Your task to perform on an android device: check storage Image 0: 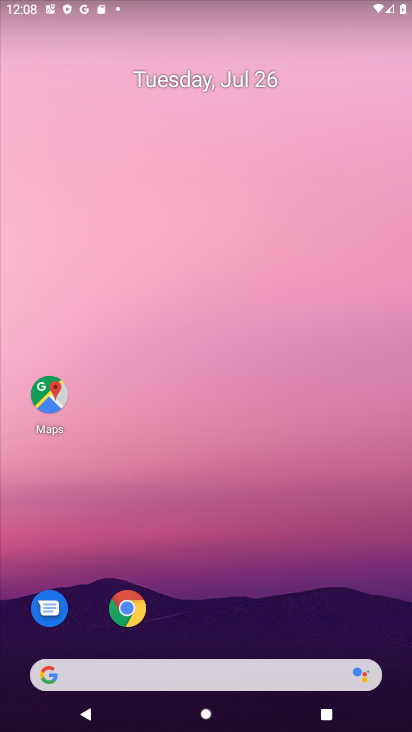
Step 0: click (129, 602)
Your task to perform on an android device: check storage Image 1: 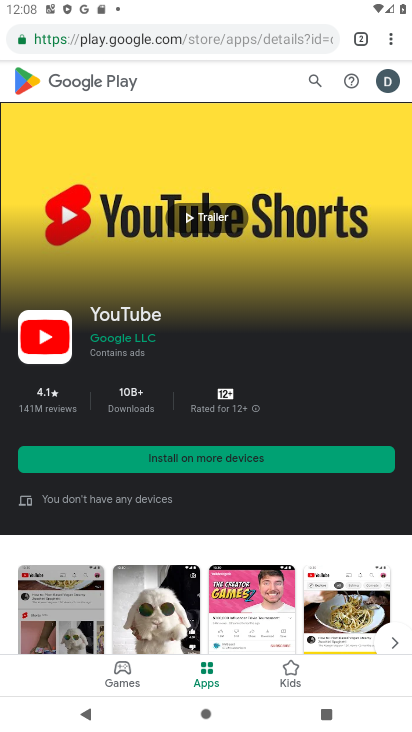
Step 1: press home button
Your task to perform on an android device: check storage Image 2: 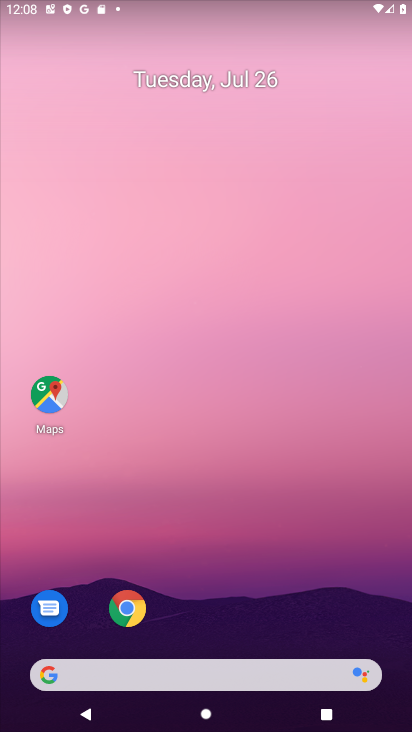
Step 2: drag from (201, 616) to (163, 64)
Your task to perform on an android device: check storage Image 3: 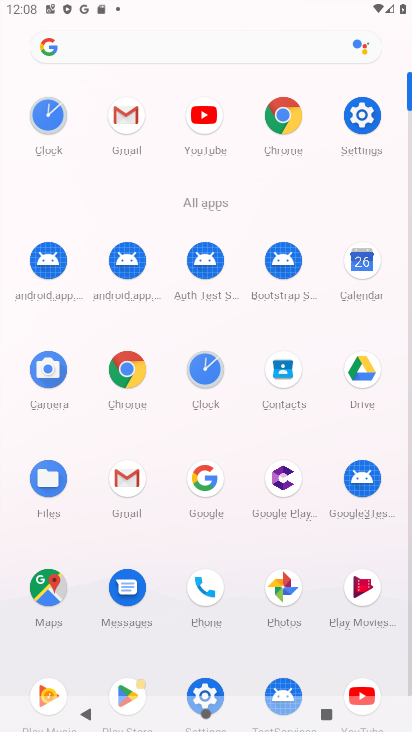
Step 3: click (352, 116)
Your task to perform on an android device: check storage Image 4: 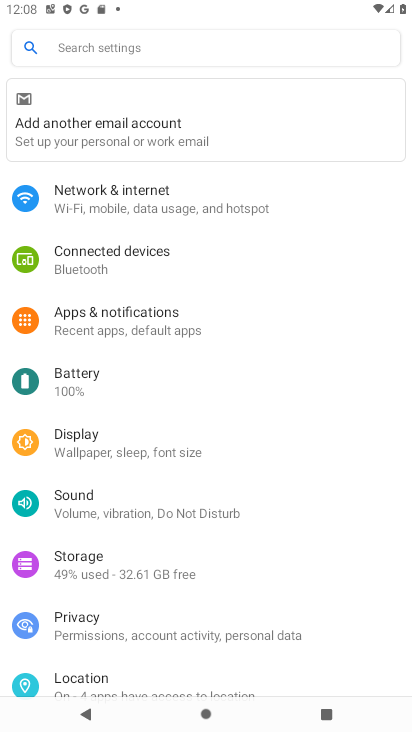
Step 4: click (80, 547)
Your task to perform on an android device: check storage Image 5: 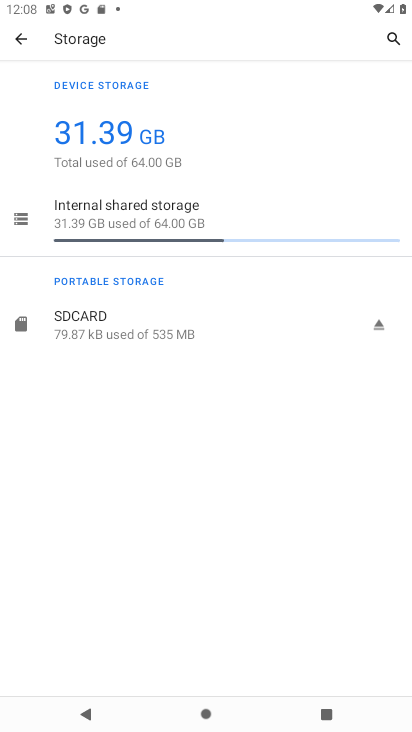
Step 5: task complete